Your task to perform on an android device: turn on airplane mode Image 0: 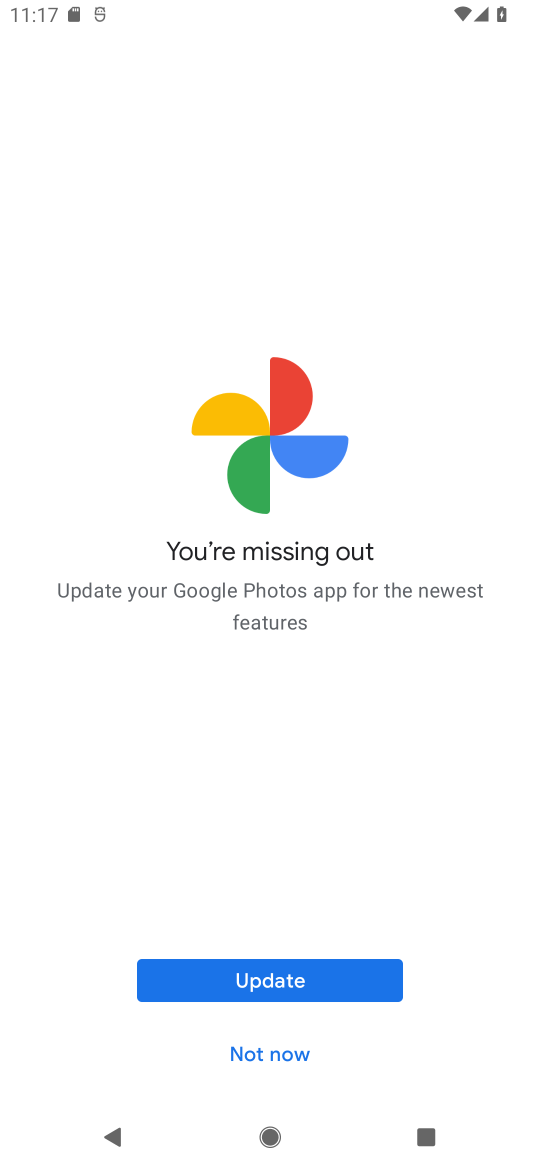
Step 0: press home button
Your task to perform on an android device: turn on airplane mode Image 1: 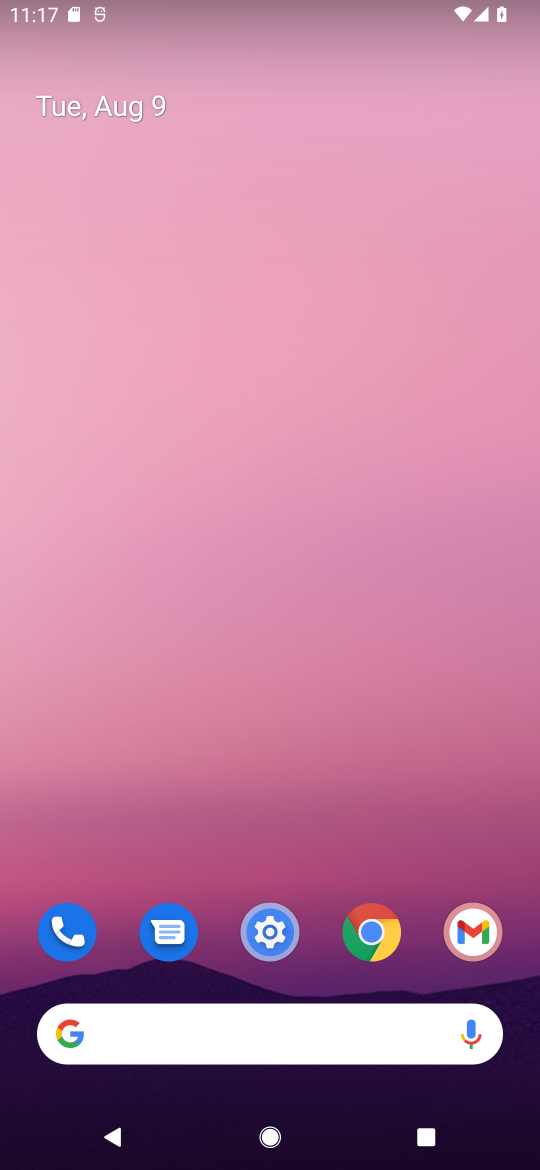
Step 1: click (276, 918)
Your task to perform on an android device: turn on airplane mode Image 2: 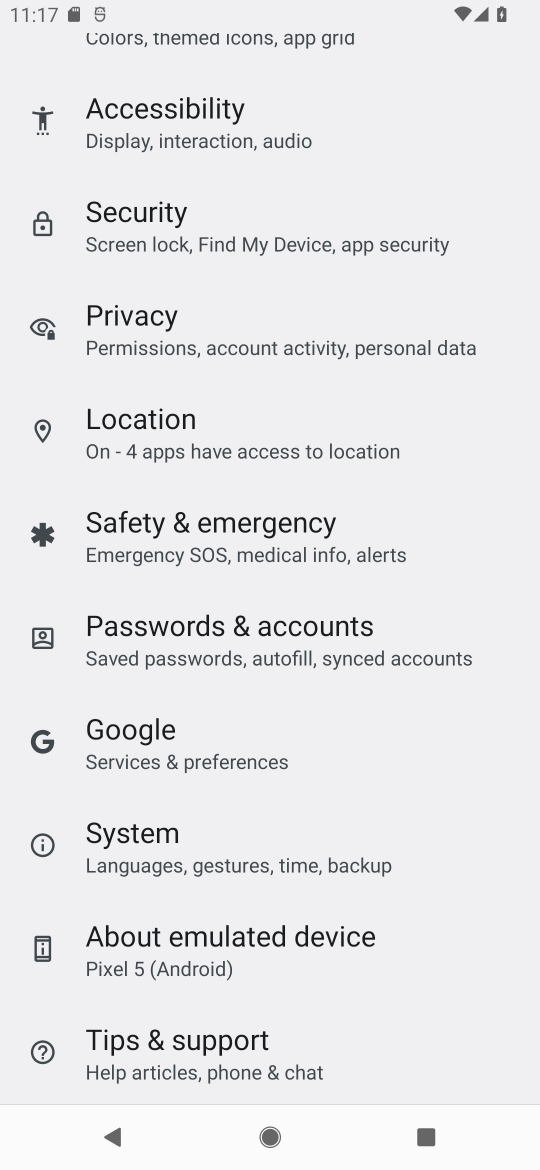
Step 2: drag from (244, 322) to (232, 1146)
Your task to perform on an android device: turn on airplane mode Image 3: 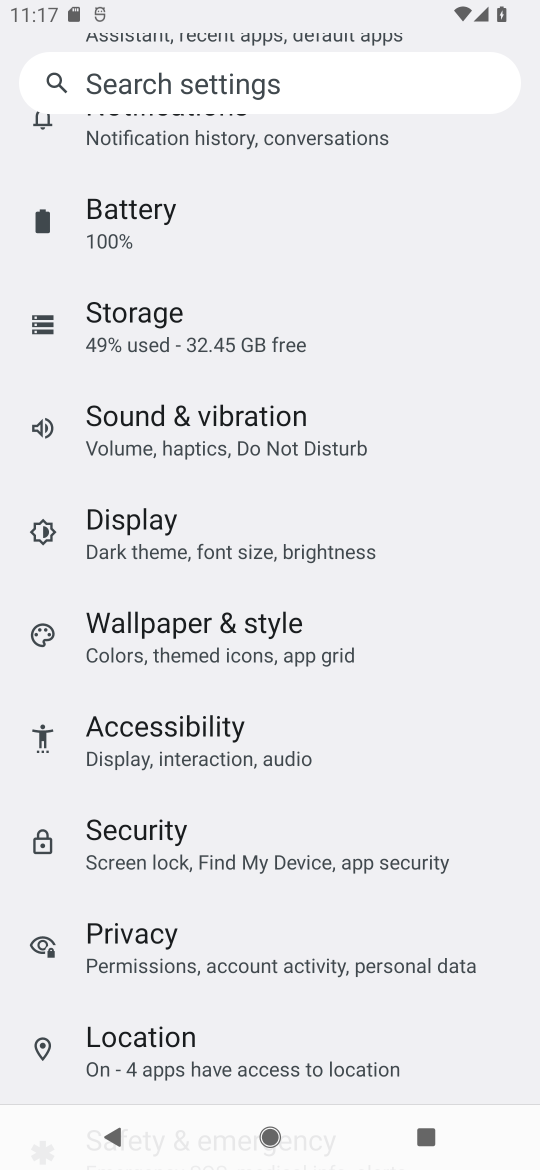
Step 3: drag from (286, 340) to (334, 1160)
Your task to perform on an android device: turn on airplane mode Image 4: 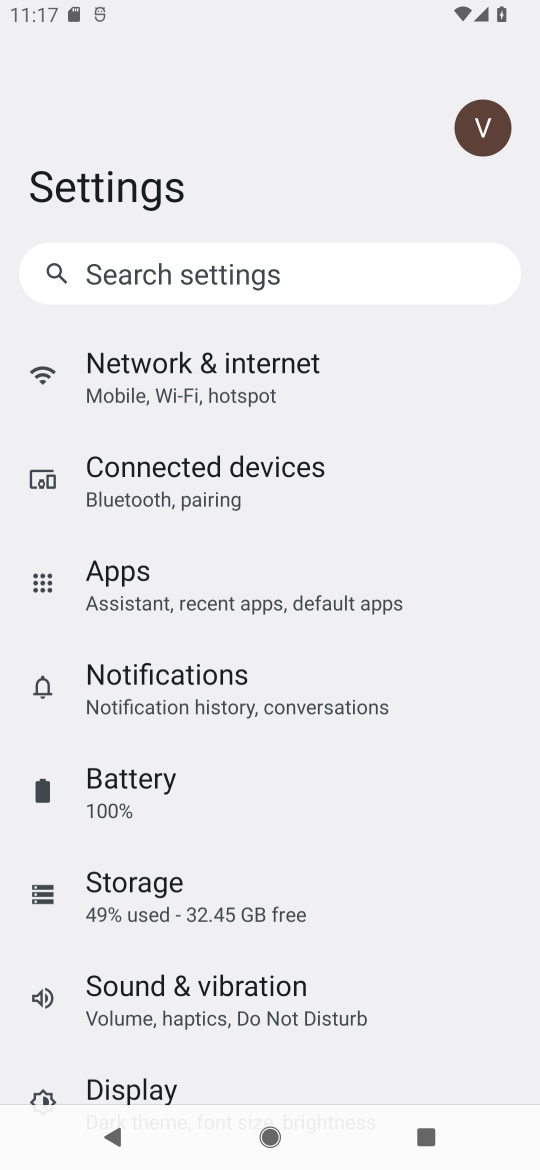
Step 4: drag from (256, 459) to (340, 1168)
Your task to perform on an android device: turn on airplane mode Image 5: 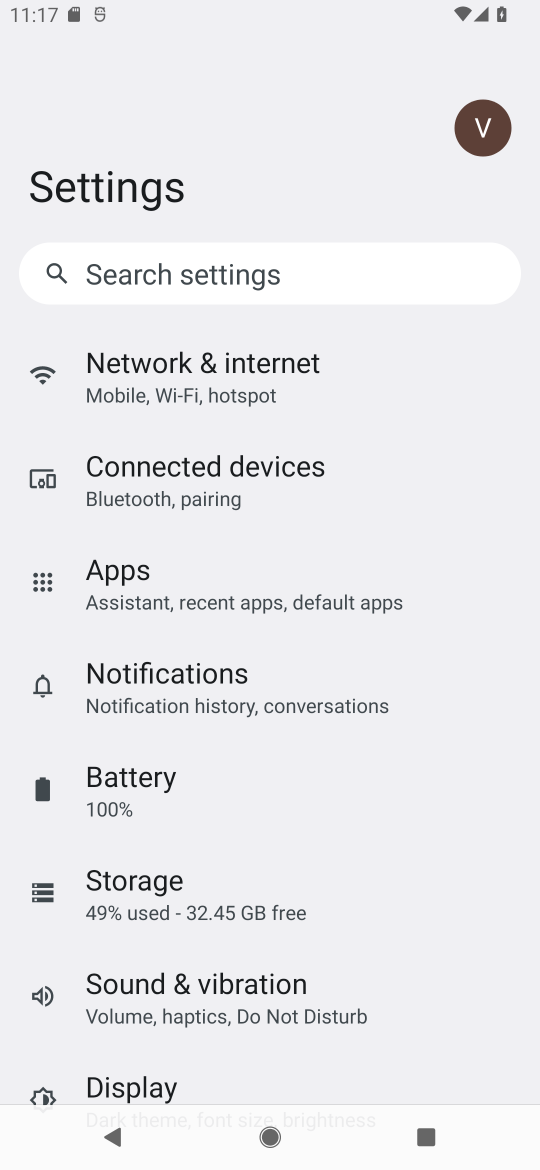
Step 5: click (194, 380)
Your task to perform on an android device: turn on airplane mode Image 6: 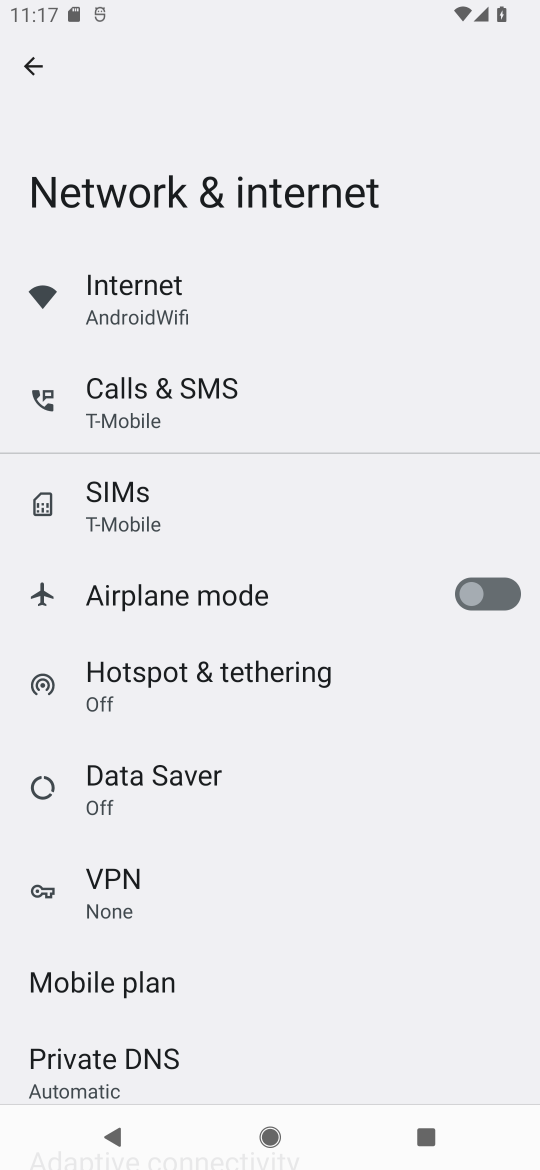
Step 6: click (516, 592)
Your task to perform on an android device: turn on airplane mode Image 7: 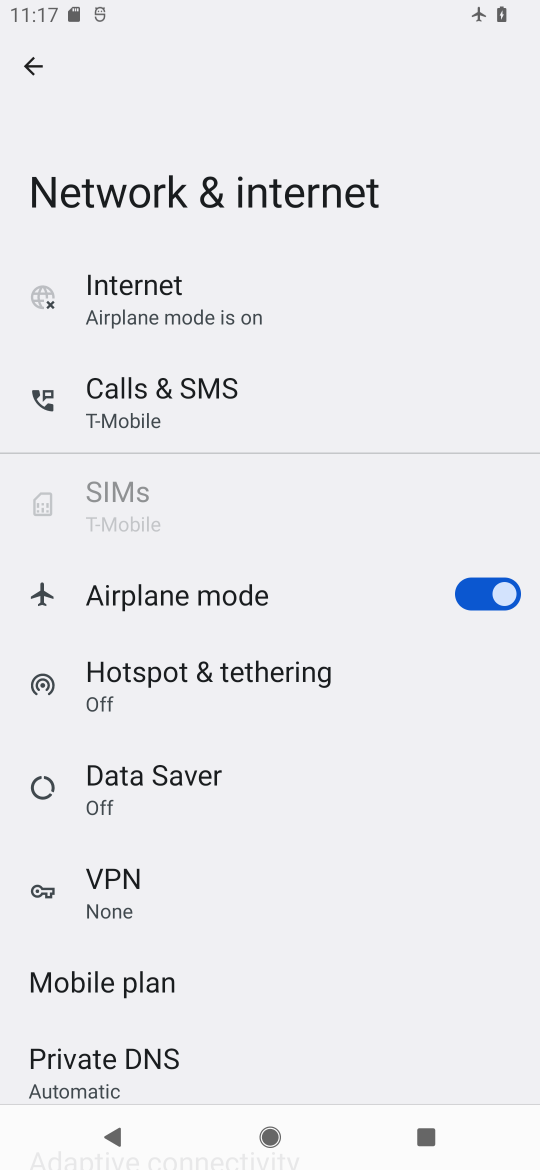
Step 7: task complete